Your task to perform on an android device: open app "Google Docs" (install if not already installed) Image 0: 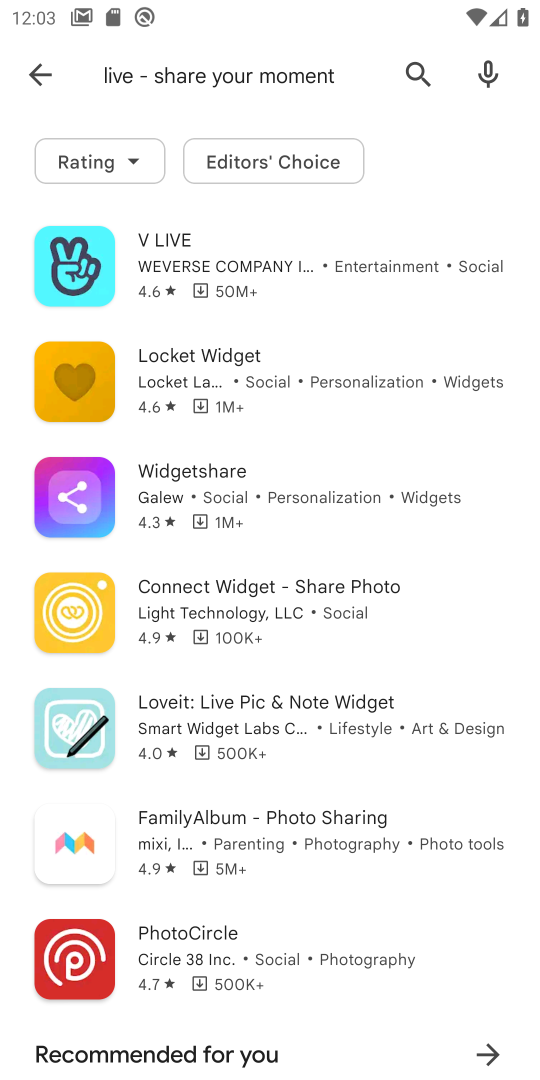
Step 0: click (406, 74)
Your task to perform on an android device: open app "Google Docs" (install if not already installed) Image 1: 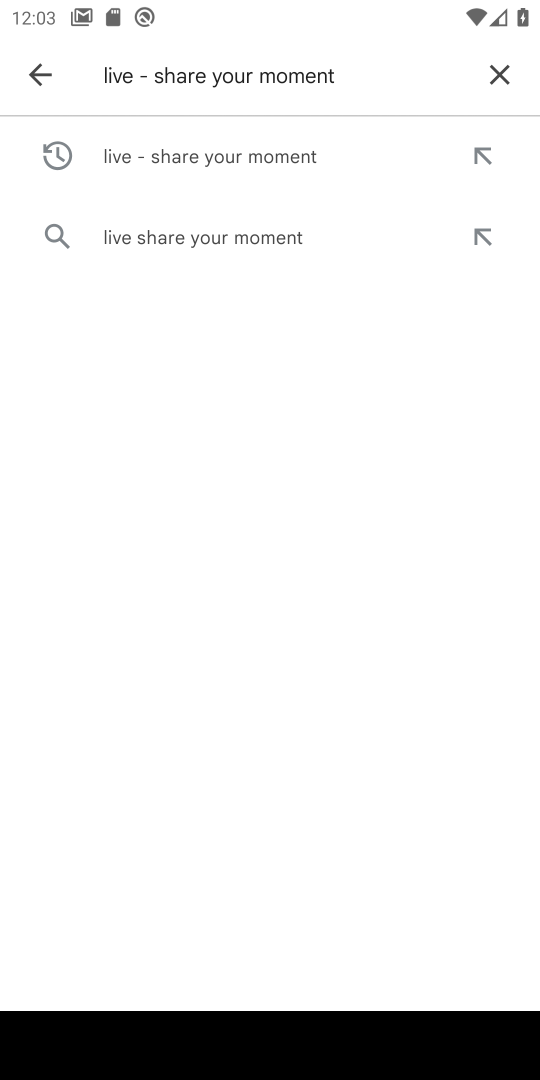
Step 1: click (501, 73)
Your task to perform on an android device: open app "Google Docs" (install if not already installed) Image 2: 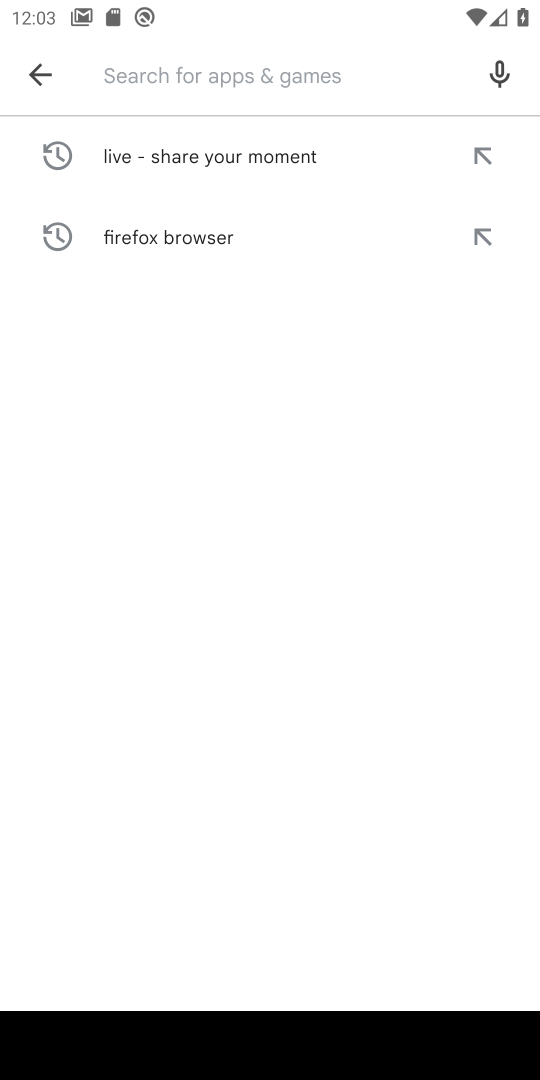
Step 2: type "Google Docs"
Your task to perform on an android device: open app "Google Docs" (install if not already installed) Image 3: 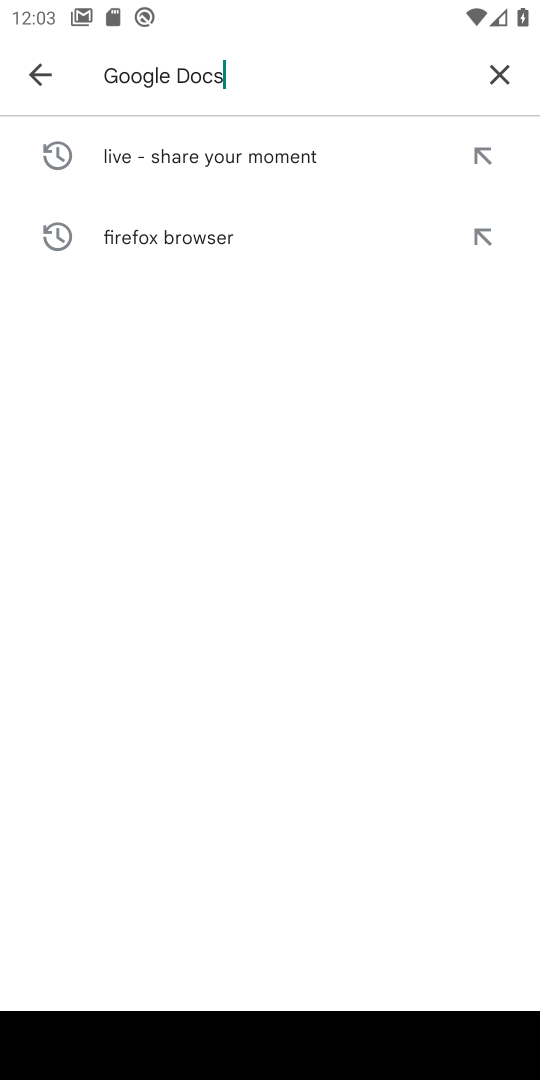
Step 3: type ""
Your task to perform on an android device: open app "Google Docs" (install if not already installed) Image 4: 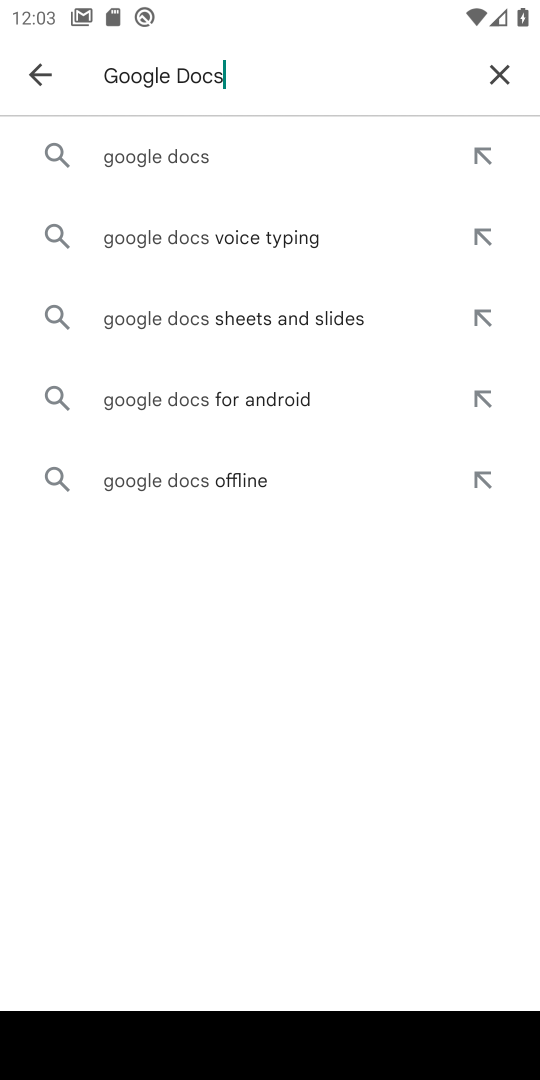
Step 4: click (156, 170)
Your task to perform on an android device: open app "Google Docs" (install if not already installed) Image 5: 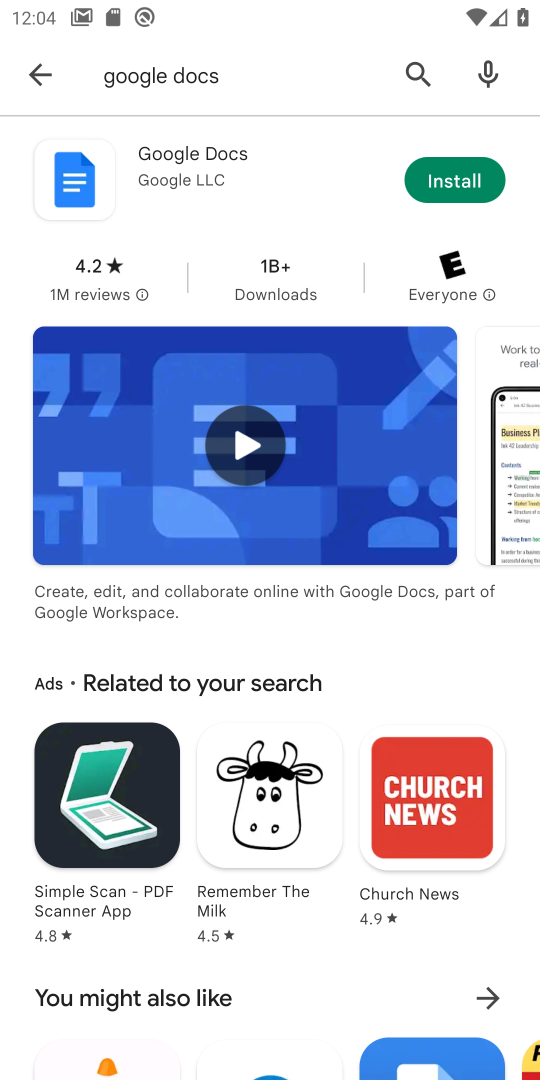
Step 5: click (463, 169)
Your task to perform on an android device: open app "Google Docs" (install if not already installed) Image 6: 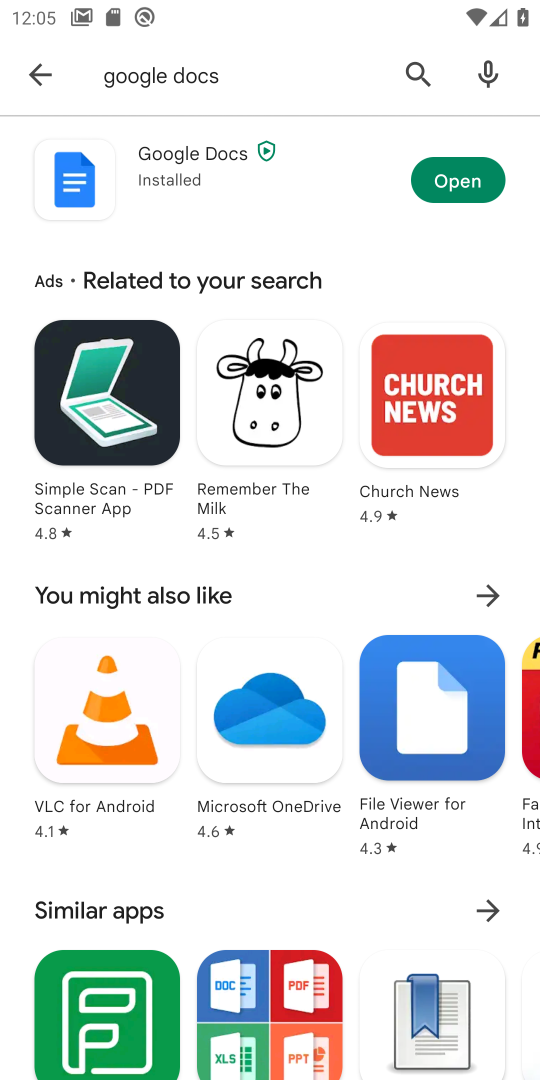
Step 6: click (486, 184)
Your task to perform on an android device: open app "Google Docs" (install if not already installed) Image 7: 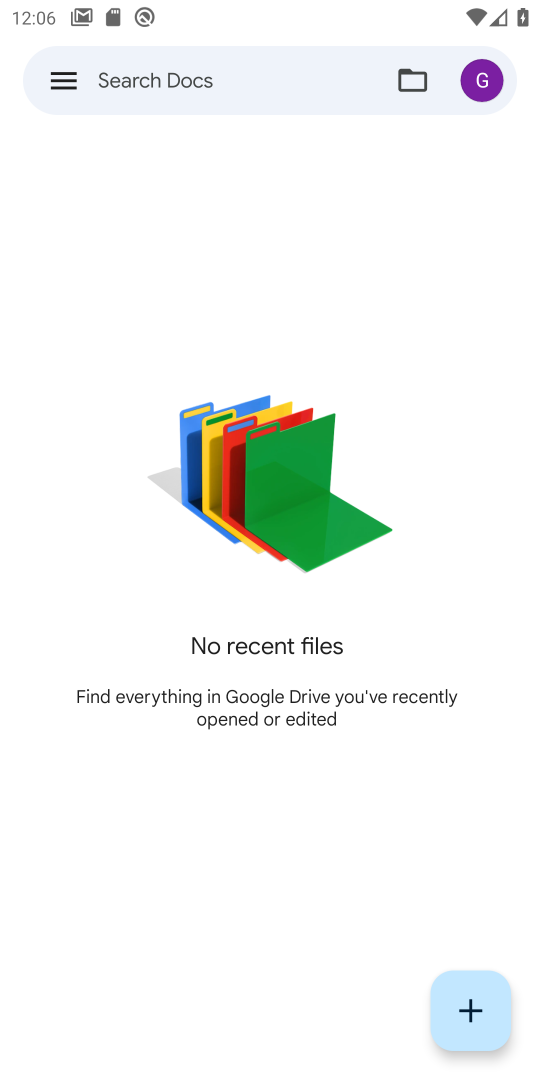
Step 7: task complete